Your task to perform on an android device: change the clock display to digital Image 0: 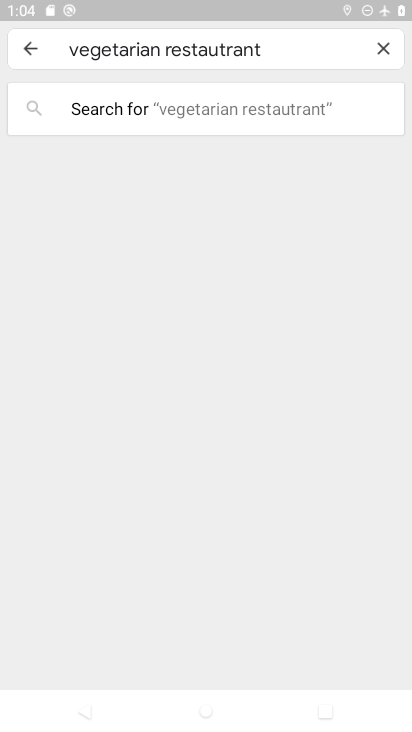
Step 0: press home button
Your task to perform on an android device: change the clock display to digital Image 1: 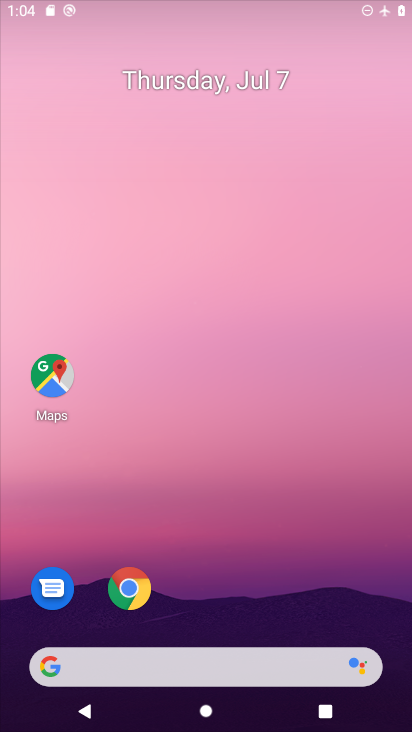
Step 1: drag from (277, 665) to (294, 84)
Your task to perform on an android device: change the clock display to digital Image 2: 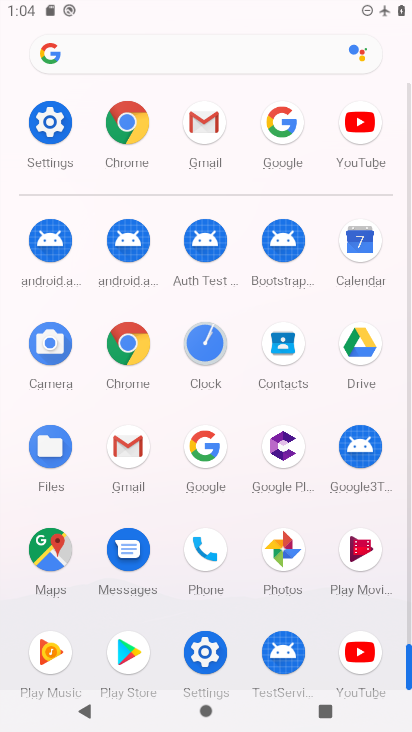
Step 2: click (192, 665)
Your task to perform on an android device: change the clock display to digital Image 3: 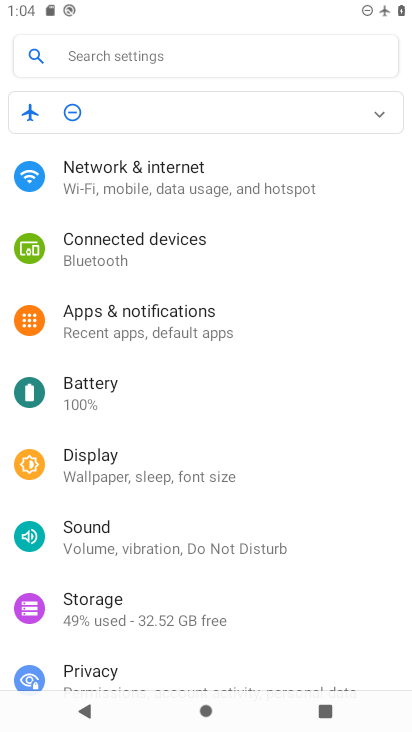
Step 3: press home button
Your task to perform on an android device: change the clock display to digital Image 4: 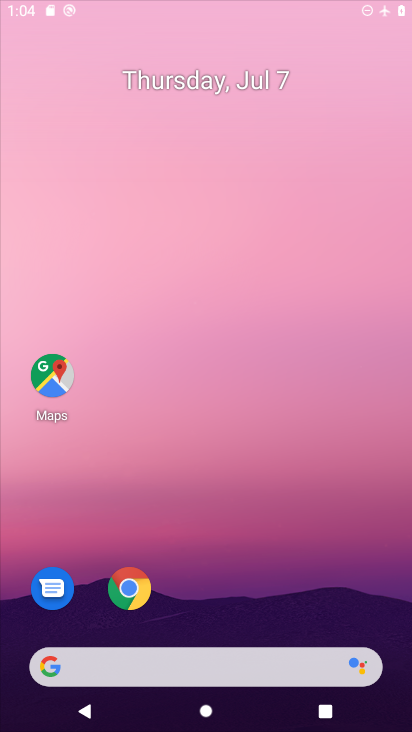
Step 4: drag from (245, 664) to (264, 110)
Your task to perform on an android device: change the clock display to digital Image 5: 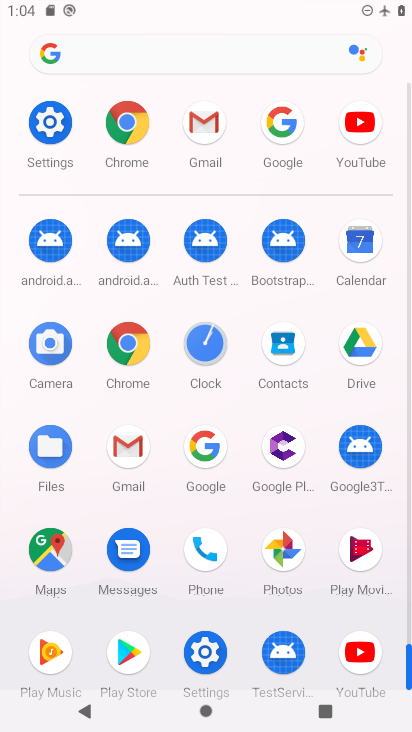
Step 5: click (196, 349)
Your task to perform on an android device: change the clock display to digital Image 6: 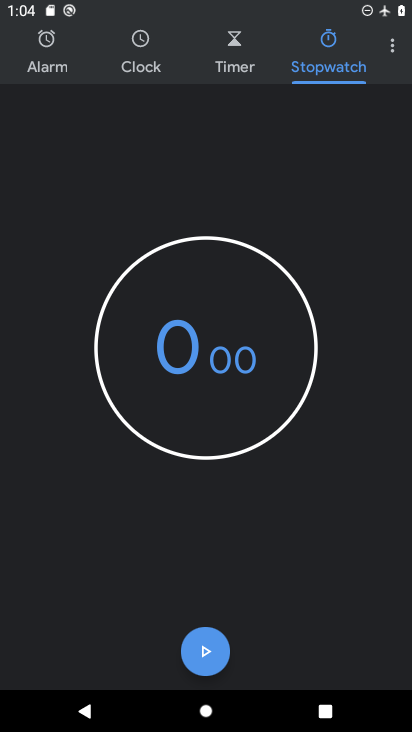
Step 6: click (384, 50)
Your task to perform on an android device: change the clock display to digital Image 7: 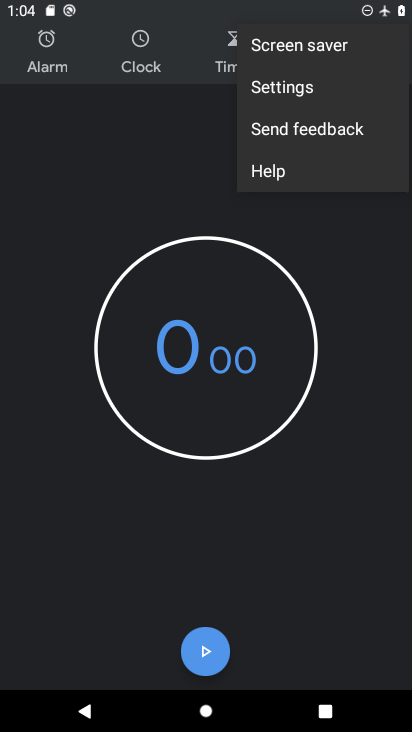
Step 7: click (314, 91)
Your task to perform on an android device: change the clock display to digital Image 8: 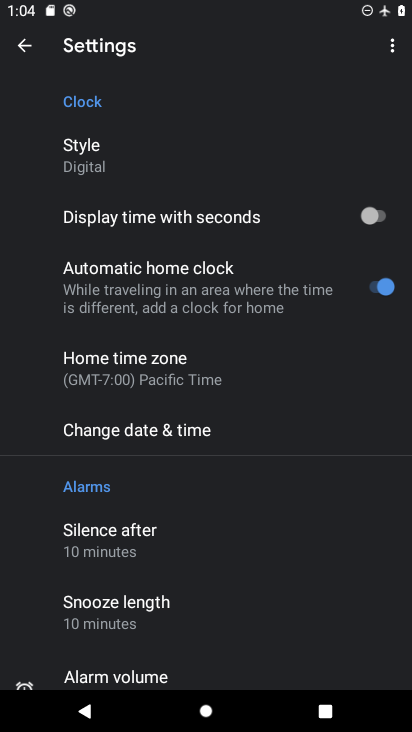
Step 8: click (111, 150)
Your task to perform on an android device: change the clock display to digital Image 9: 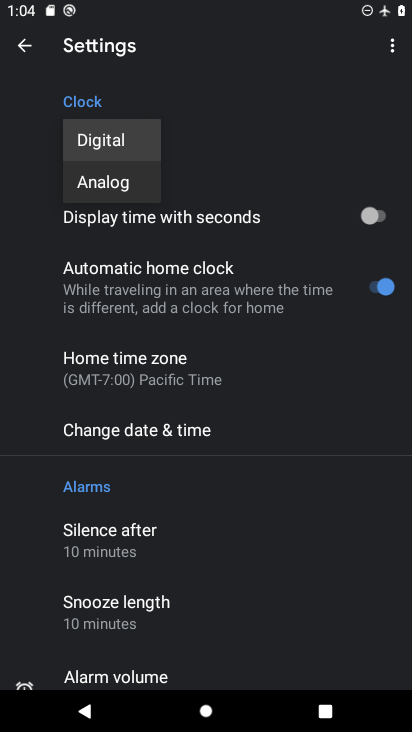
Step 9: click (380, 95)
Your task to perform on an android device: change the clock display to digital Image 10: 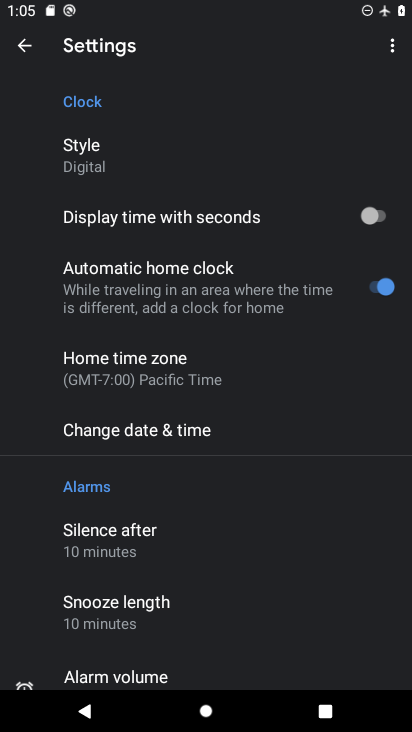
Step 10: click (174, 166)
Your task to perform on an android device: change the clock display to digital Image 11: 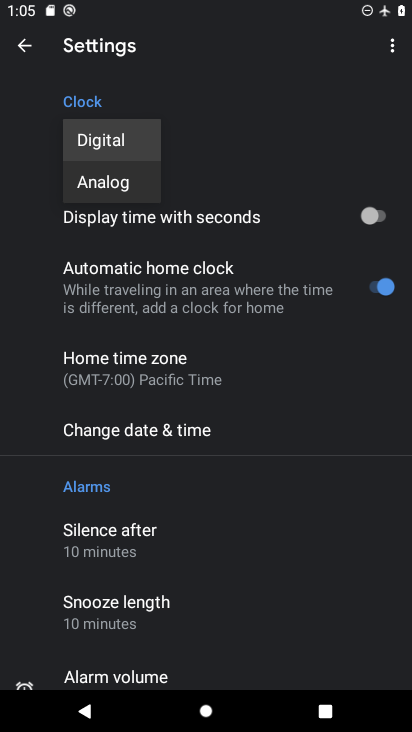
Step 11: click (132, 151)
Your task to perform on an android device: change the clock display to digital Image 12: 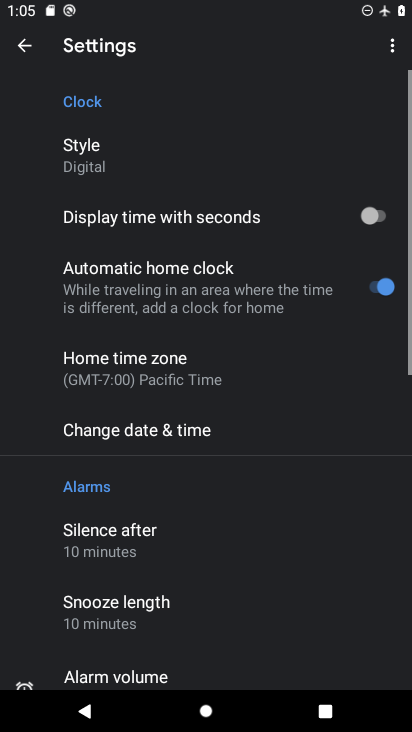
Step 12: task complete